Your task to perform on an android device: empty trash in the gmail app Image 0: 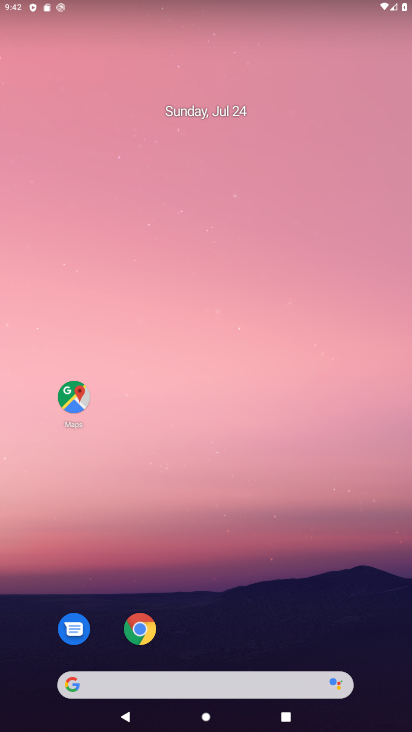
Step 0: drag from (178, 686) to (191, 142)
Your task to perform on an android device: empty trash in the gmail app Image 1: 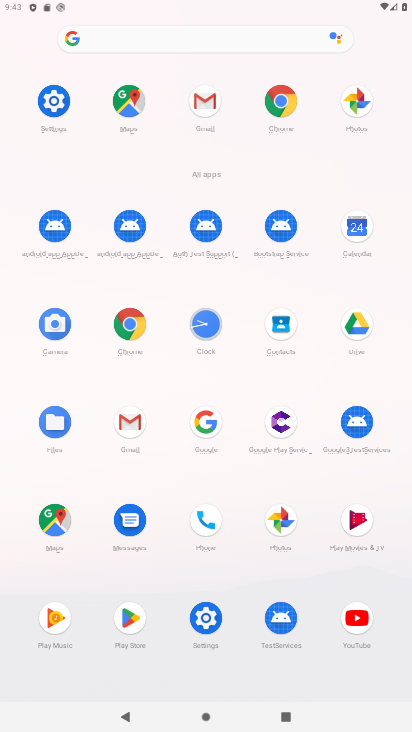
Step 1: click (130, 422)
Your task to perform on an android device: empty trash in the gmail app Image 2: 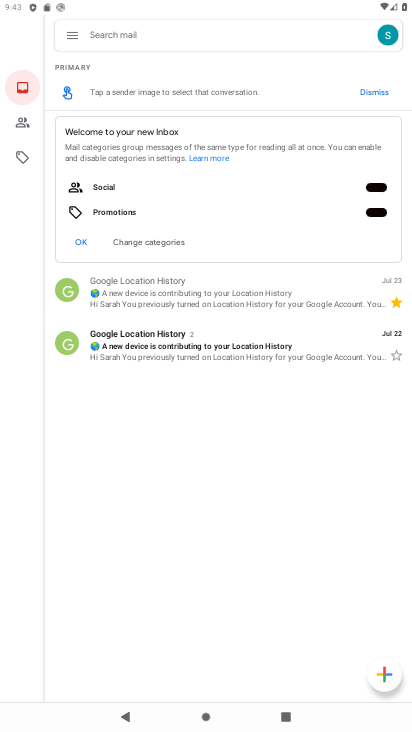
Step 2: click (72, 34)
Your task to perform on an android device: empty trash in the gmail app Image 3: 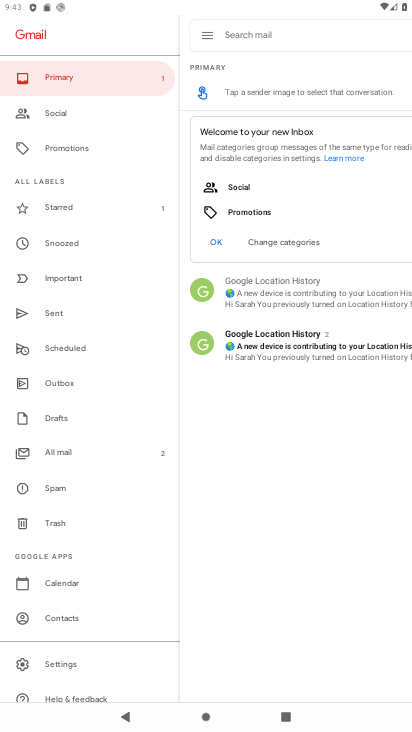
Step 3: click (53, 522)
Your task to perform on an android device: empty trash in the gmail app Image 4: 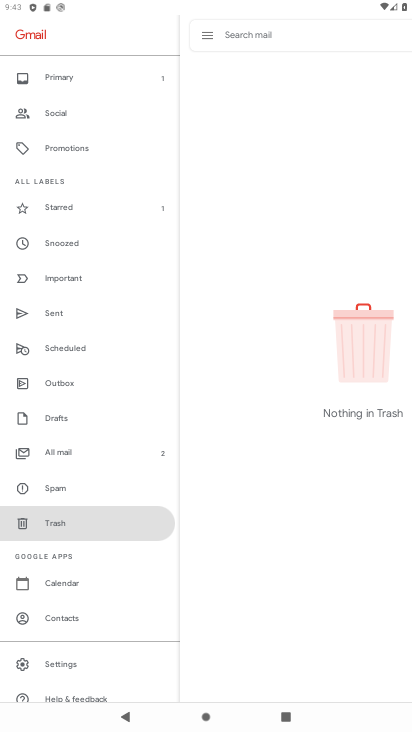
Step 4: task complete